Your task to perform on an android device: Show me the alarms in the clock app Image 0: 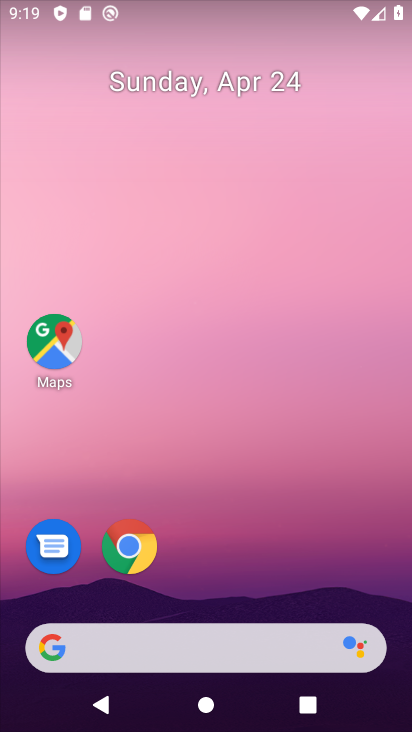
Step 0: drag from (231, 540) to (137, 107)
Your task to perform on an android device: Show me the alarms in the clock app Image 1: 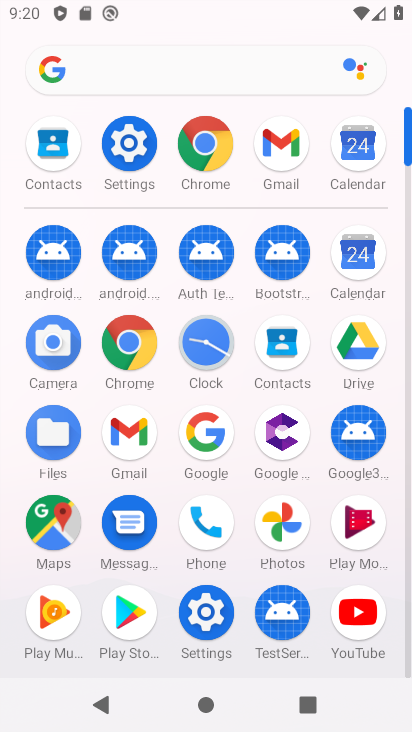
Step 1: click (208, 338)
Your task to perform on an android device: Show me the alarms in the clock app Image 2: 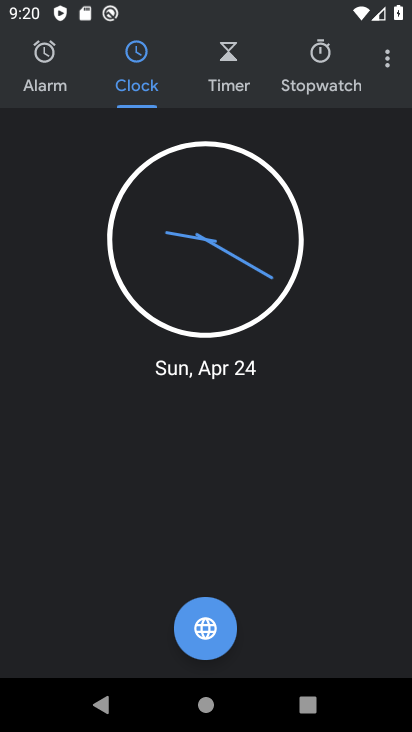
Step 2: click (33, 87)
Your task to perform on an android device: Show me the alarms in the clock app Image 3: 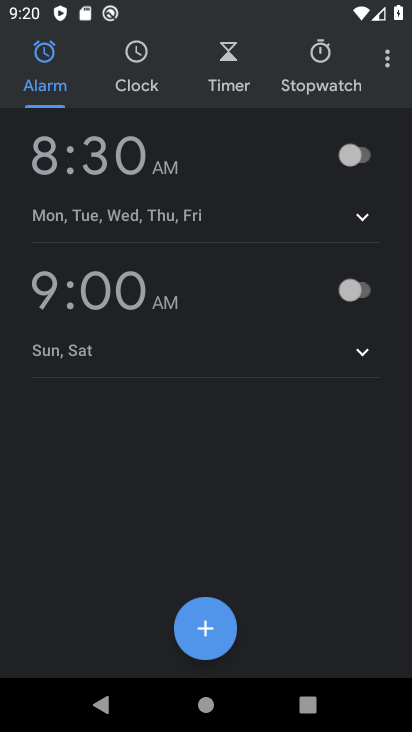
Step 3: task complete